Your task to perform on an android device: Go to battery settings Image 0: 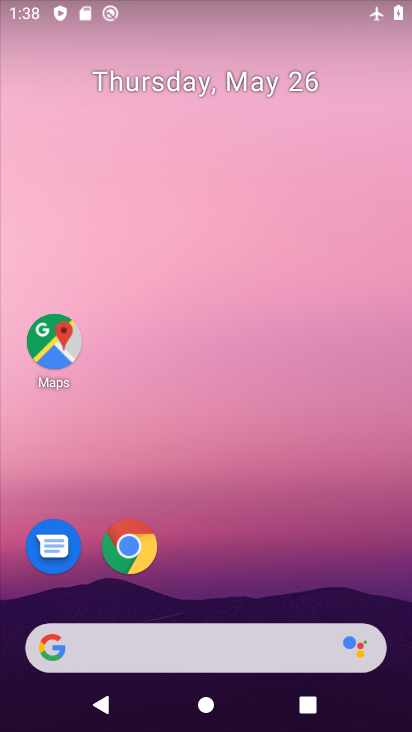
Step 0: drag from (237, 362) to (270, 122)
Your task to perform on an android device: Go to battery settings Image 1: 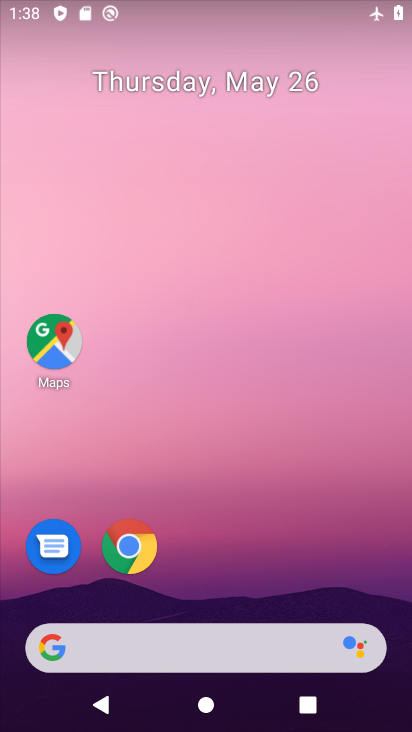
Step 1: drag from (229, 458) to (273, 64)
Your task to perform on an android device: Go to battery settings Image 2: 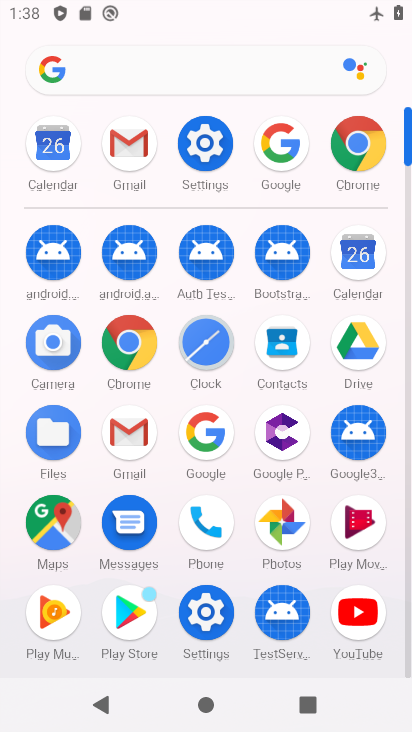
Step 2: click (203, 132)
Your task to perform on an android device: Go to battery settings Image 3: 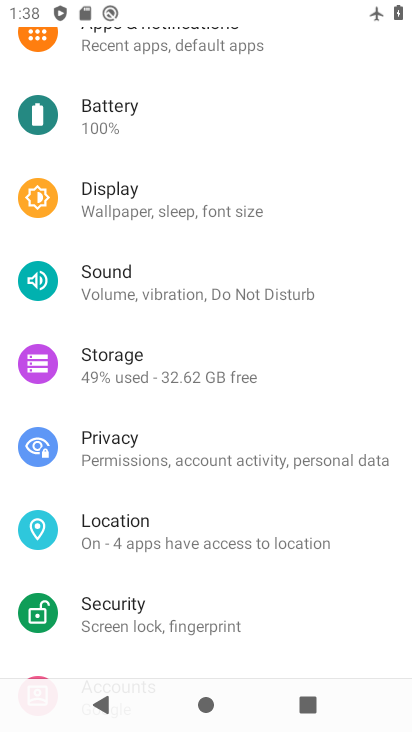
Step 3: click (125, 117)
Your task to perform on an android device: Go to battery settings Image 4: 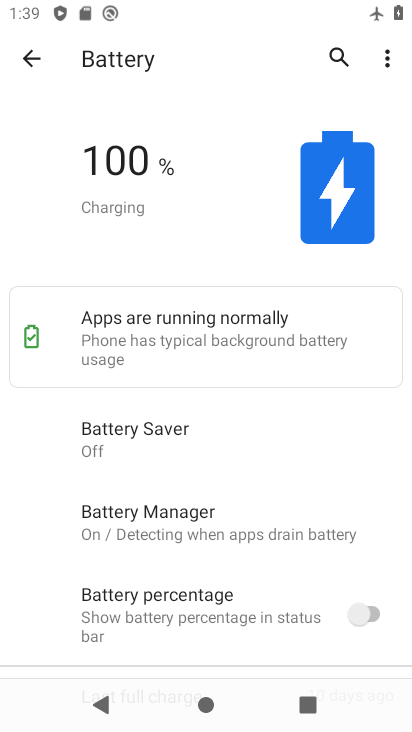
Step 4: task complete